Your task to perform on an android device: add a contact in the contacts app Image 0: 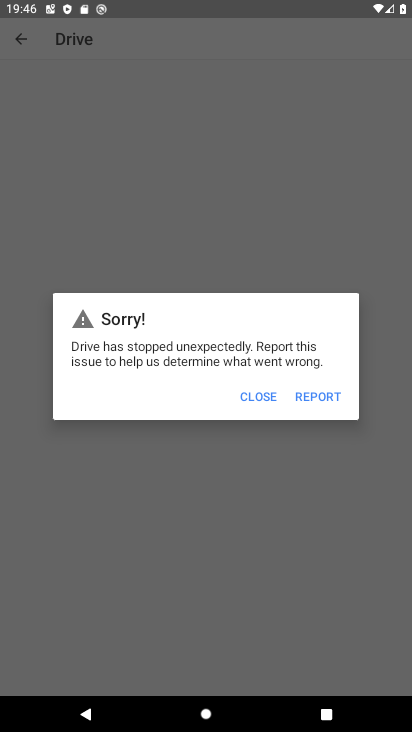
Step 0: press home button
Your task to perform on an android device: add a contact in the contacts app Image 1: 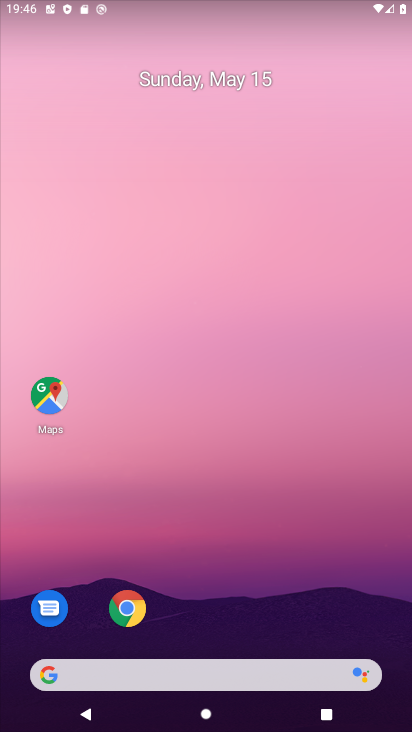
Step 1: drag from (287, 566) to (328, 89)
Your task to perform on an android device: add a contact in the contacts app Image 2: 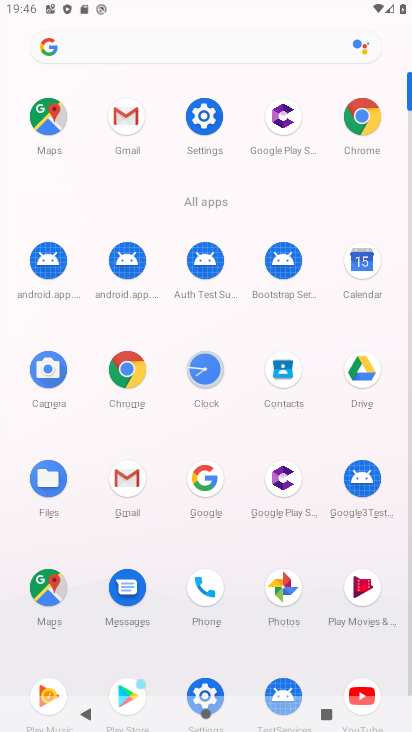
Step 2: click (278, 373)
Your task to perform on an android device: add a contact in the contacts app Image 3: 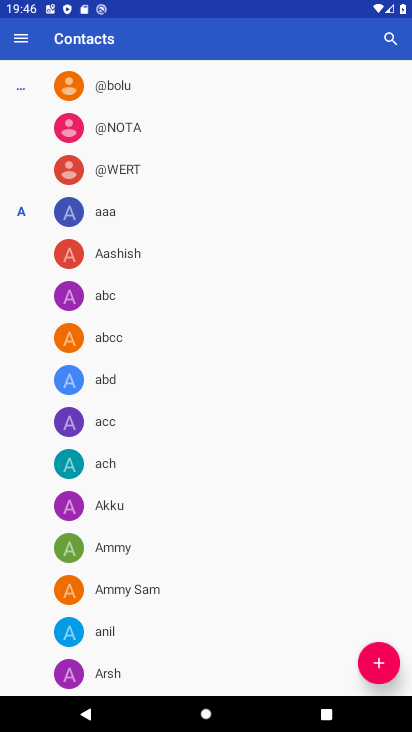
Step 3: click (376, 668)
Your task to perform on an android device: add a contact in the contacts app Image 4: 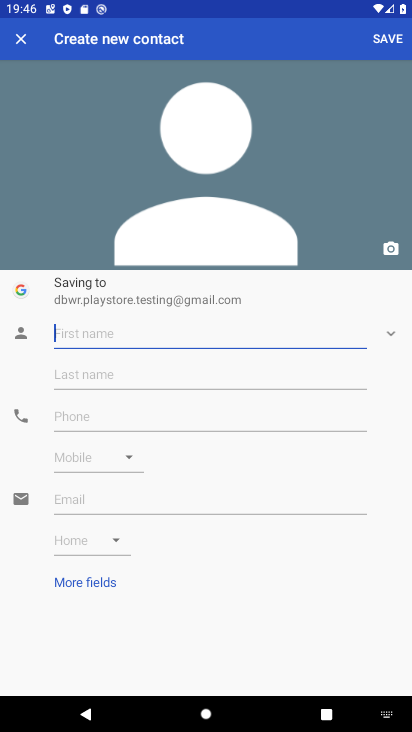
Step 4: type "ghgjkj"
Your task to perform on an android device: add a contact in the contacts app Image 5: 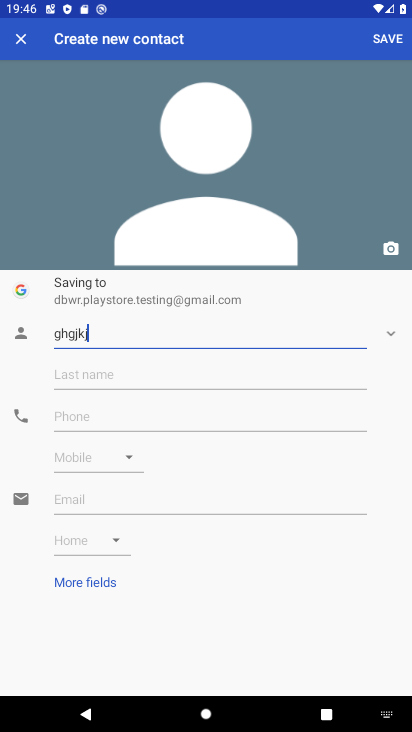
Step 5: click (387, 43)
Your task to perform on an android device: add a contact in the contacts app Image 6: 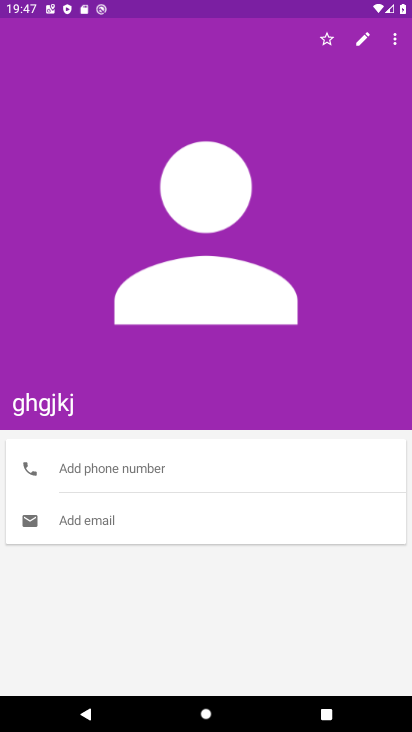
Step 6: task complete